Your task to perform on an android device: Open my contact list Image 0: 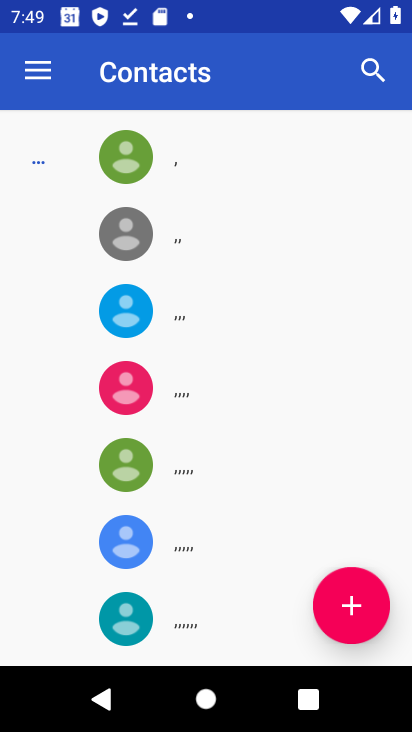
Step 0: press home button
Your task to perform on an android device: Open my contact list Image 1: 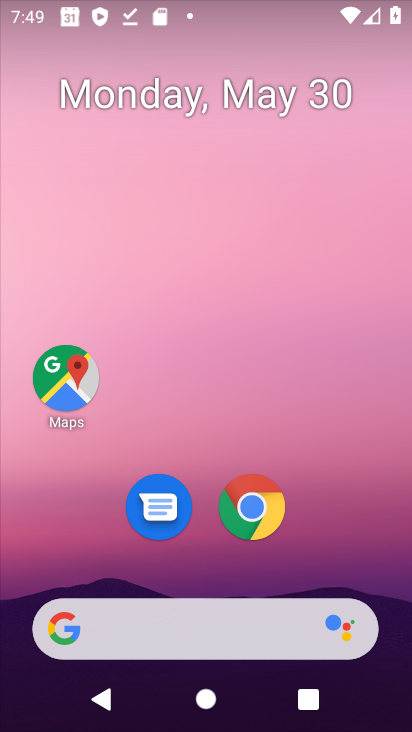
Step 1: drag from (394, 503) to (375, 165)
Your task to perform on an android device: Open my contact list Image 2: 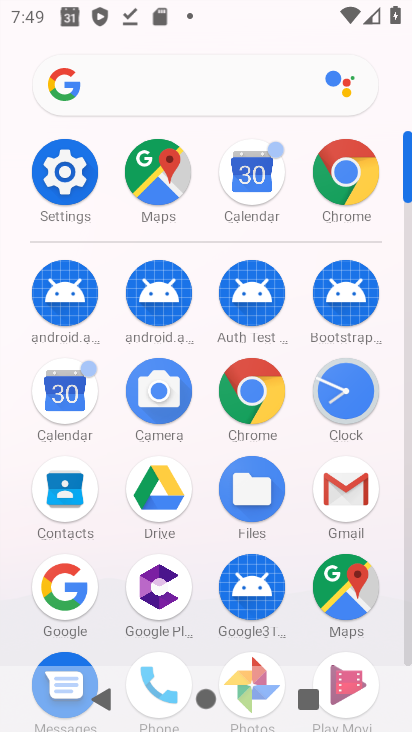
Step 2: click (67, 505)
Your task to perform on an android device: Open my contact list Image 3: 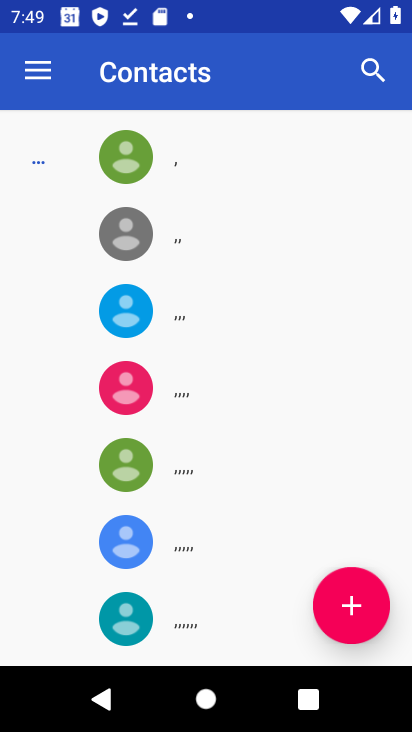
Step 3: task complete